Your task to perform on an android device: Go to settings Image 0: 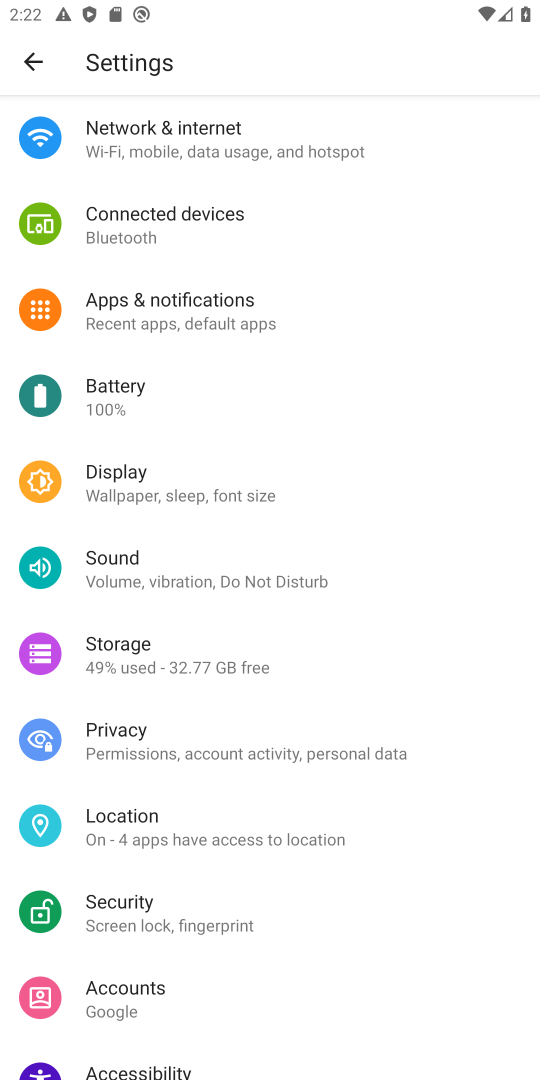
Step 0: task complete